Your task to perform on an android device: Do I have any events tomorrow? Image 0: 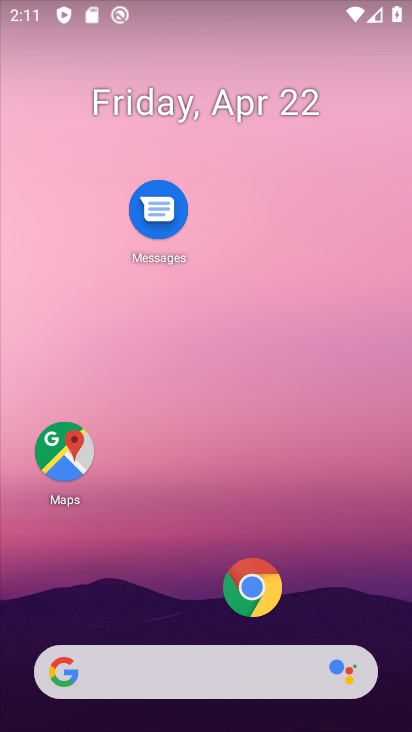
Step 0: drag from (171, 595) to (216, 178)
Your task to perform on an android device: Do I have any events tomorrow? Image 1: 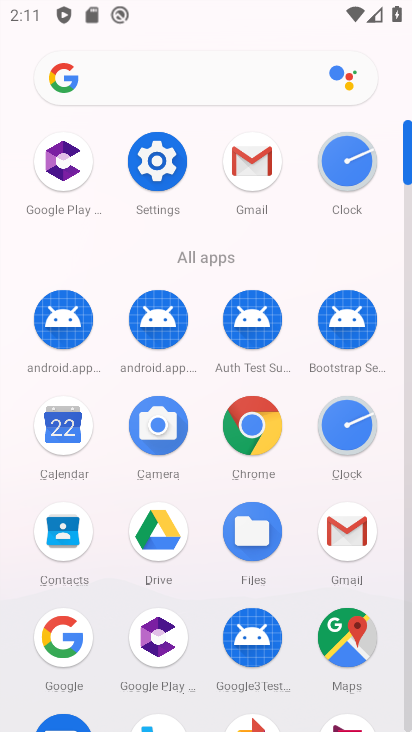
Step 1: click (62, 423)
Your task to perform on an android device: Do I have any events tomorrow? Image 2: 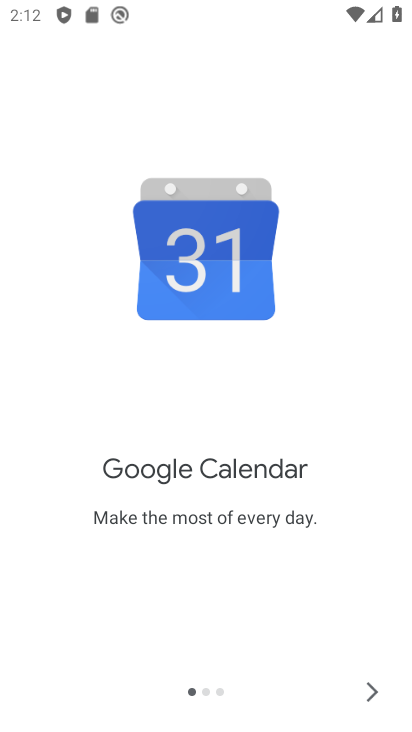
Step 2: click (368, 695)
Your task to perform on an android device: Do I have any events tomorrow? Image 3: 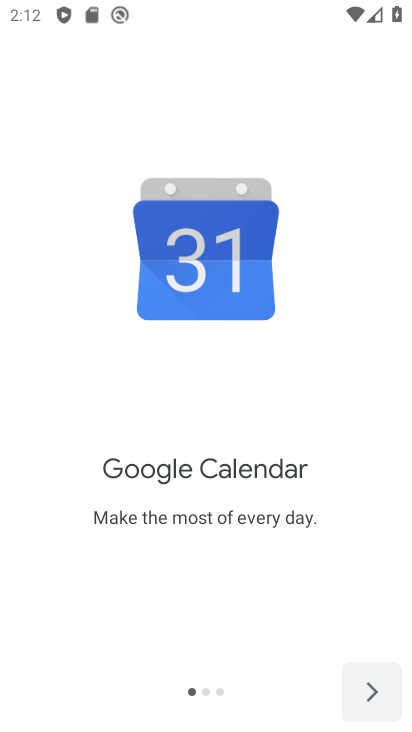
Step 3: click (368, 695)
Your task to perform on an android device: Do I have any events tomorrow? Image 4: 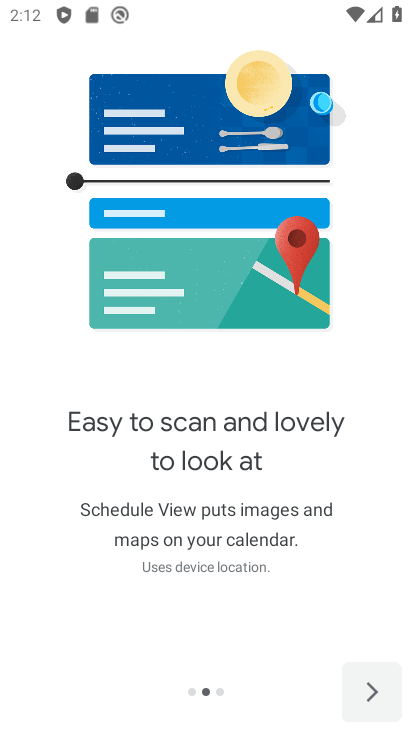
Step 4: click (368, 695)
Your task to perform on an android device: Do I have any events tomorrow? Image 5: 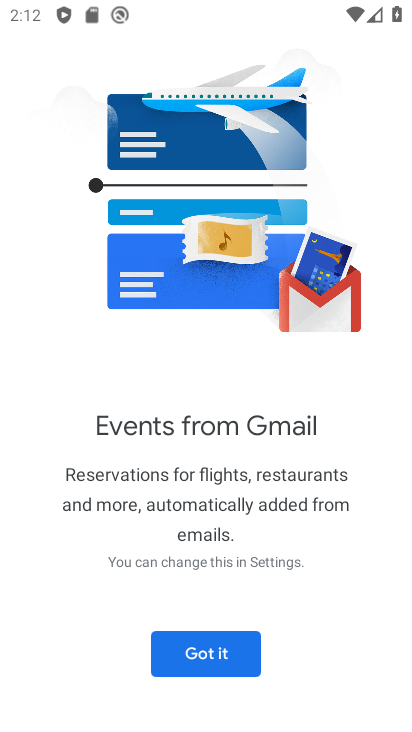
Step 5: click (187, 641)
Your task to perform on an android device: Do I have any events tomorrow? Image 6: 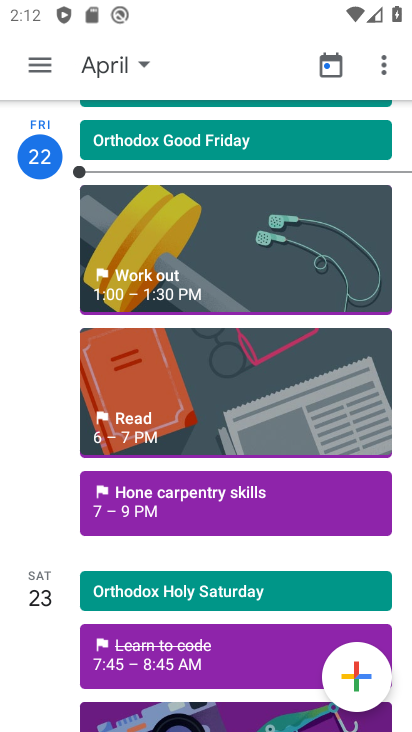
Step 6: click (40, 601)
Your task to perform on an android device: Do I have any events tomorrow? Image 7: 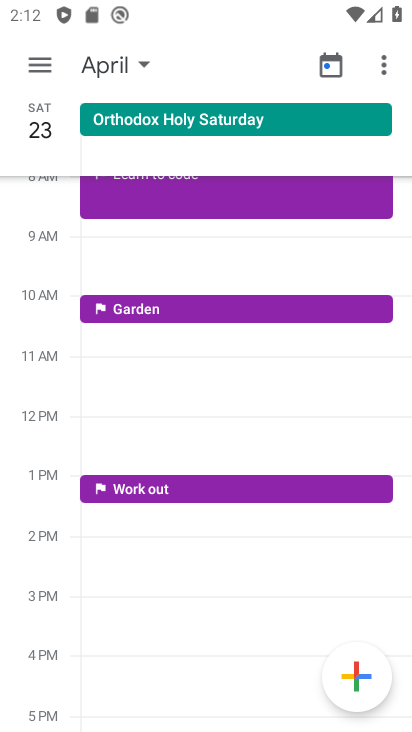
Step 7: task complete